Your task to perform on an android device: stop showing notifications on the lock screen Image 0: 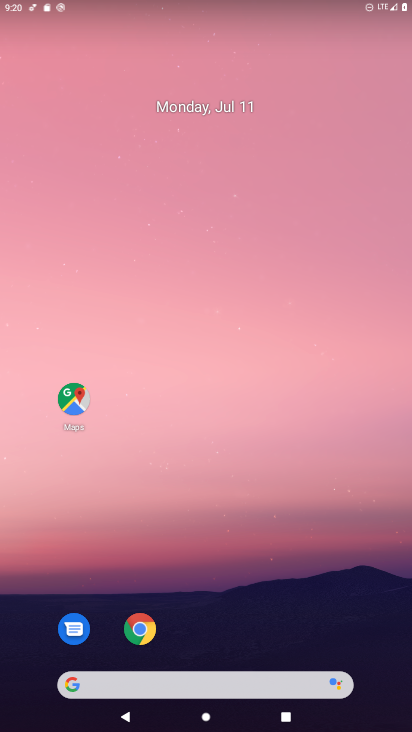
Step 0: drag from (170, 9) to (243, 619)
Your task to perform on an android device: stop showing notifications on the lock screen Image 1: 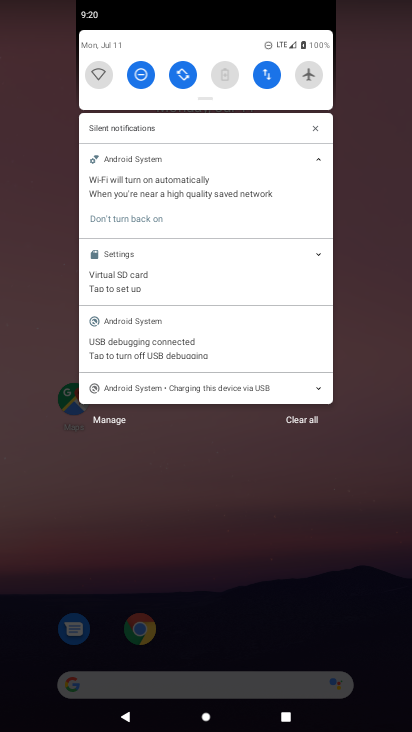
Step 1: drag from (236, 41) to (303, 609)
Your task to perform on an android device: stop showing notifications on the lock screen Image 2: 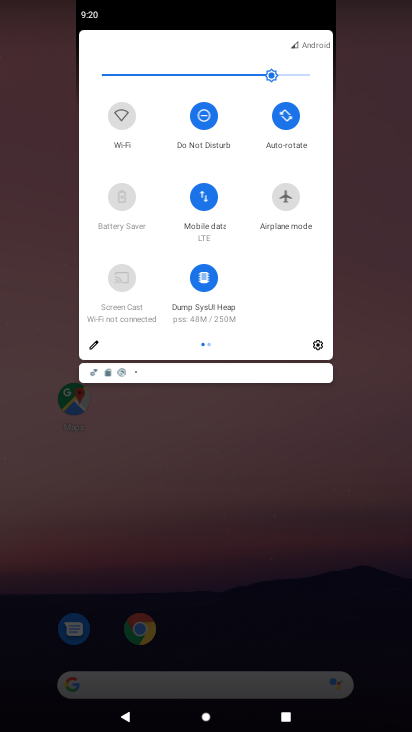
Step 2: click (317, 346)
Your task to perform on an android device: stop showing notifications on the lock screen Image 3: 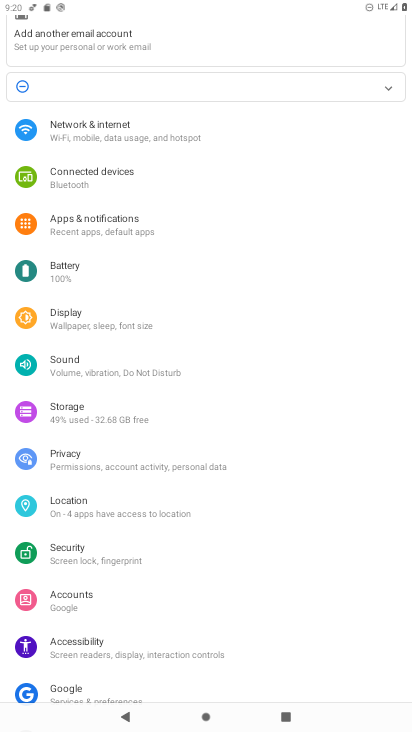
Step 3: click (132, 243)
Your task to perform on an android device: stop showing notifications on the lock screen Image 4: 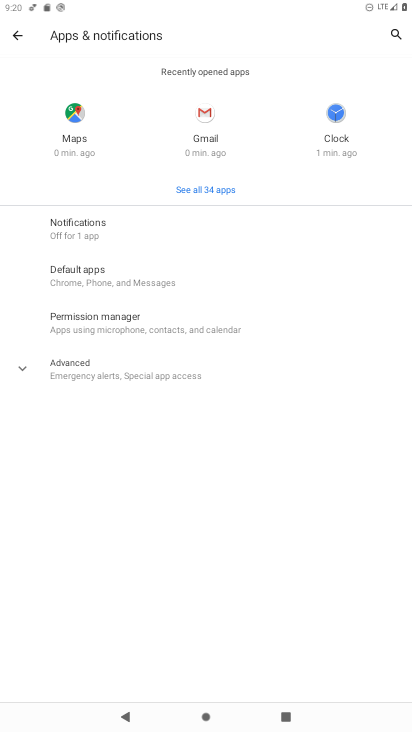
Step 4: click (132, 243)
Your task to perform on an android device: stop showing notifications on the lock screen Image 5: 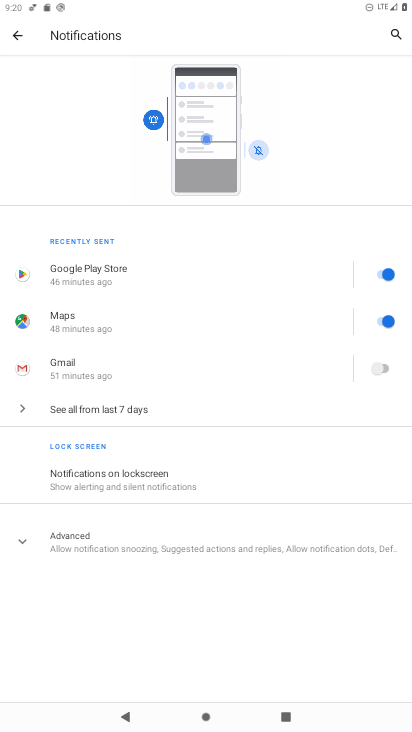
Step 5: click (236, 476)
Your task to perform on an android device: stop showing notifications on the lock screen Image 6: 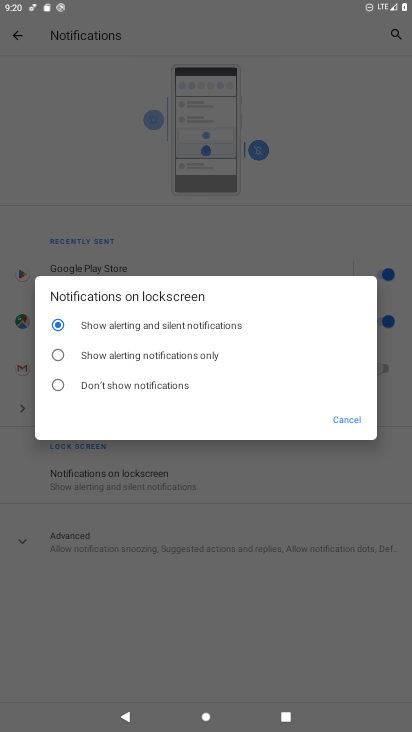
Step 6: click (169, 378)
Your task to perform on an android device: stop showing notifications on the lock screen Image 7: 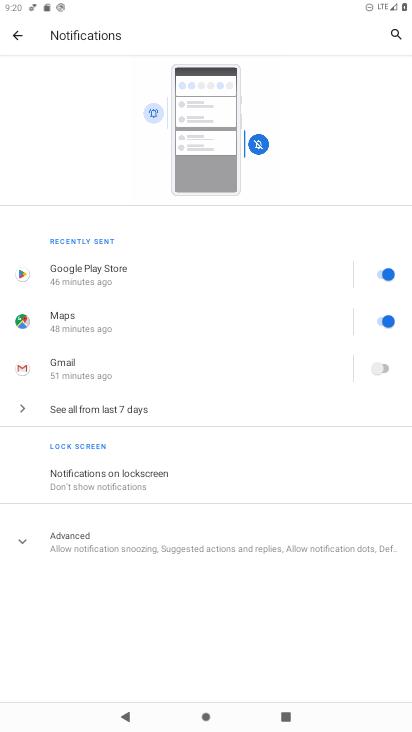
Step 7: task complete